Your task to perform on an android device: check android version Image 0: 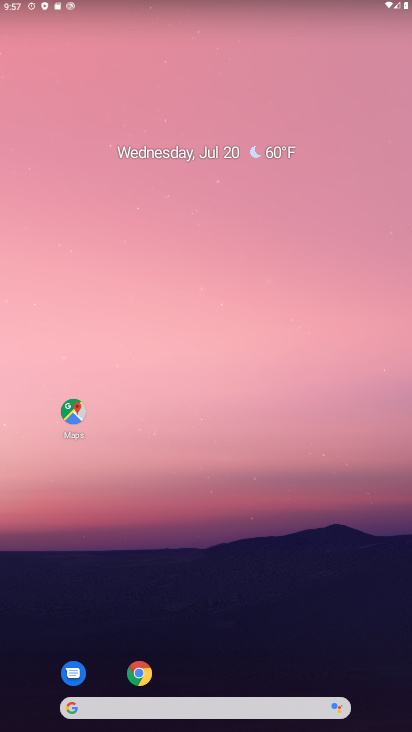
Step 0: drag from (219, 657) to (240, 133)
Your task to perform on an android device: check android version Image 1: 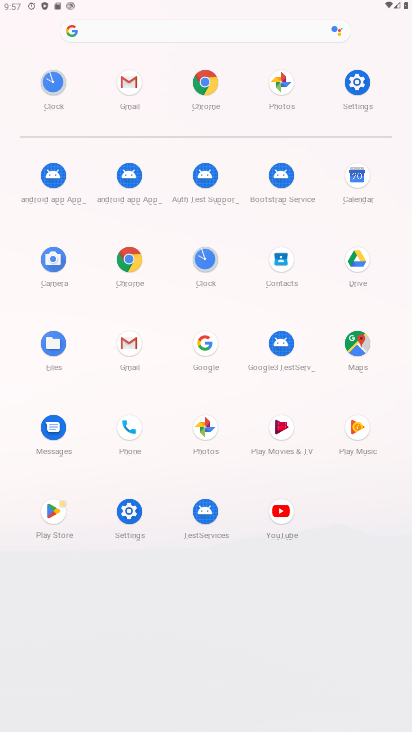
Step 1: click (133, 516)
Your task to perform on an android device: check android version Image 2: 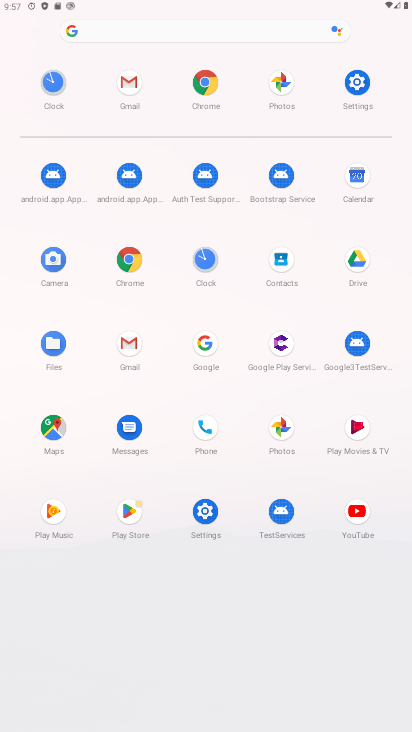
Step 2: click (214, 502)
Your task to perform on an android device: check android version Image 3: 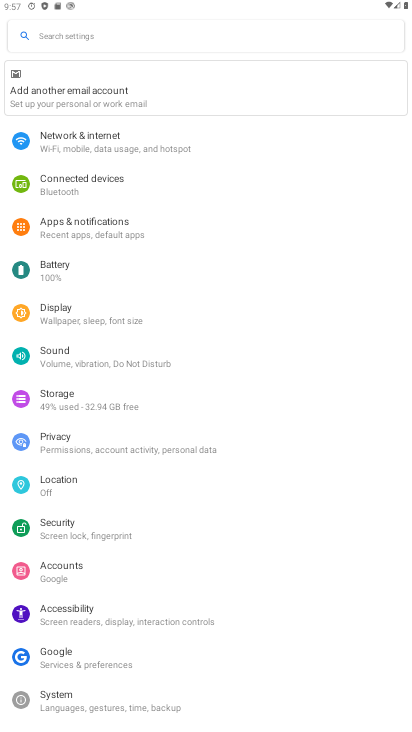
Step 3: drag from (175, 602) to (170, 239)
Your task to perform on an android device: check android version Image 4: 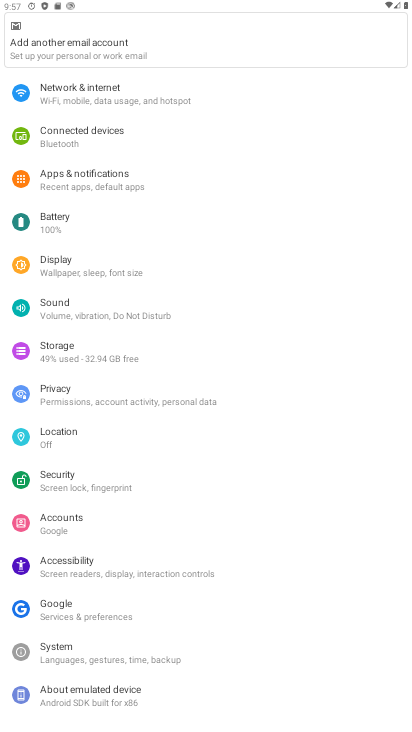
Step 4: click (97, 693)
Your task to perform on an android device: check android version Image 5: 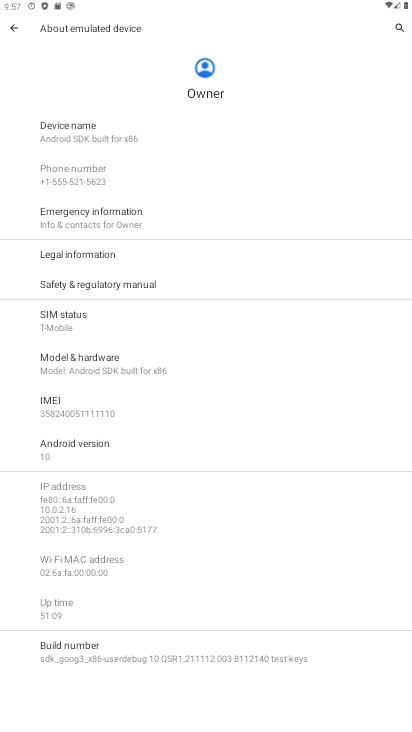
Step 5: click (73, 457)
Your task to perform on an android device: check android version Image 6: 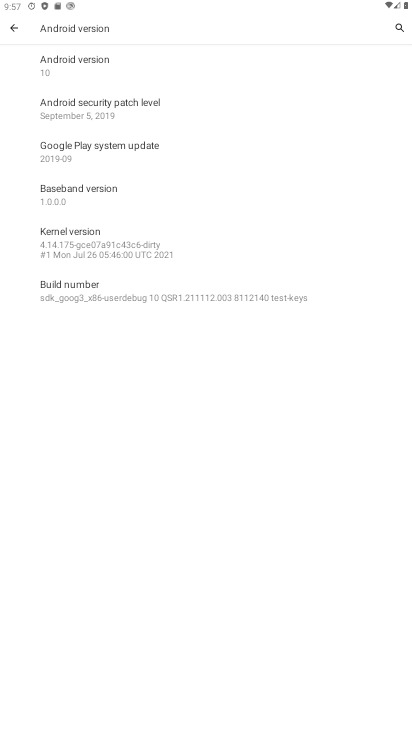
Step 6: click (103, 65)
Your task to perform on an android device: check android version Image 7: 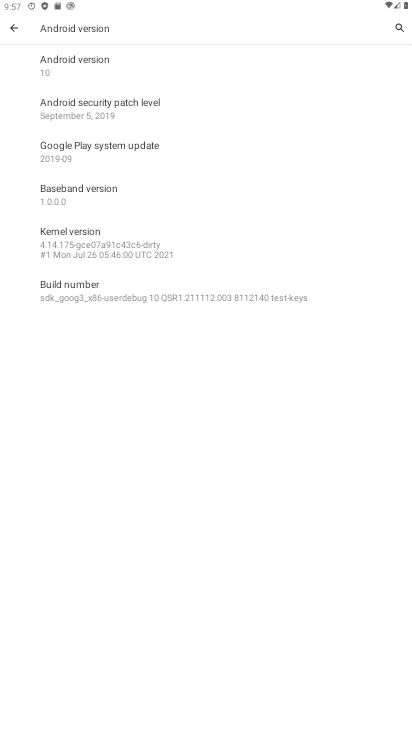
Step 7: task complete